Your task to perform on an android device: change text size in settings app Image 0: 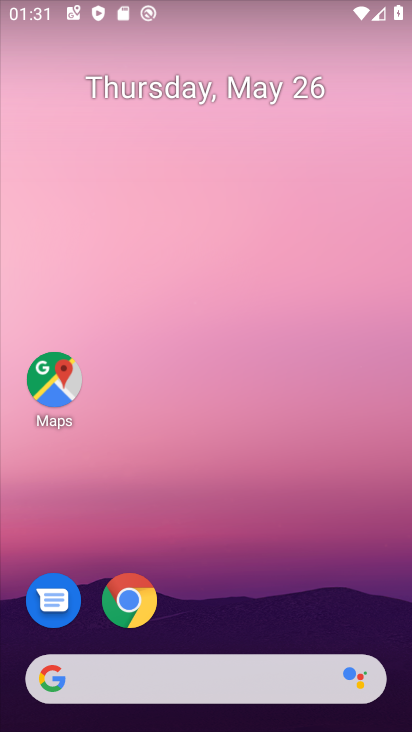
Step 0: drag from (189, 572) to (221, 173)
Your task to perform on an android device: change text size in settings app Image 1: 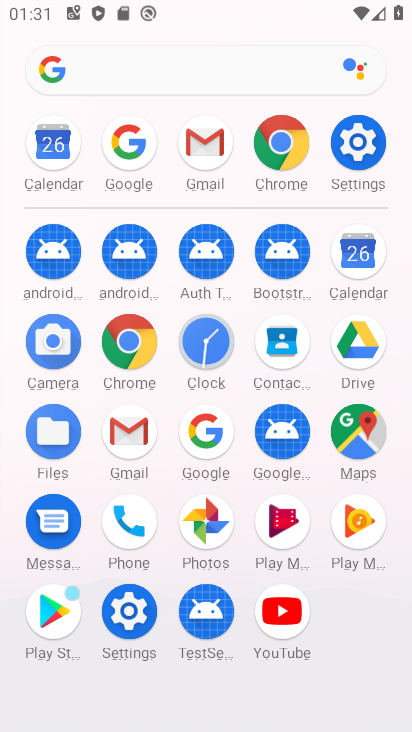
Step 1: click (388, 147)
Your task to perform on an android device: change text size in settings app Image 2: 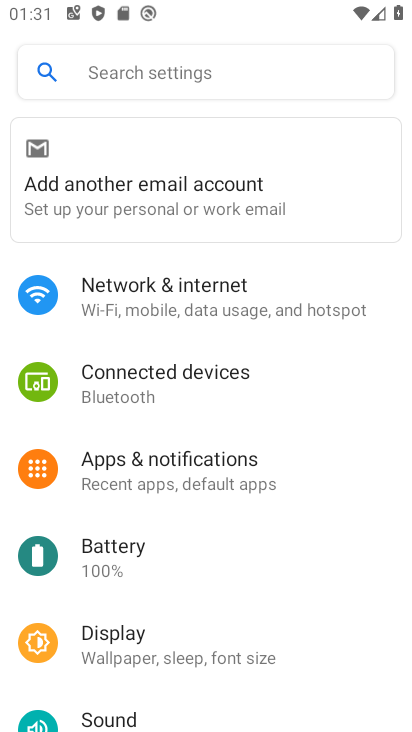
Step 2: click (121, 643)
Your task to perform on an android device: change text size in settings app Image 3: 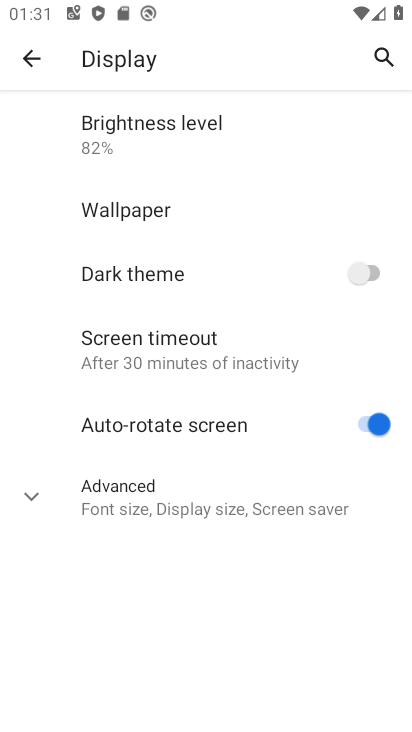
Step 3: click (117, 492)
Your task to perform on an android device: change text size in settings app Image 4: 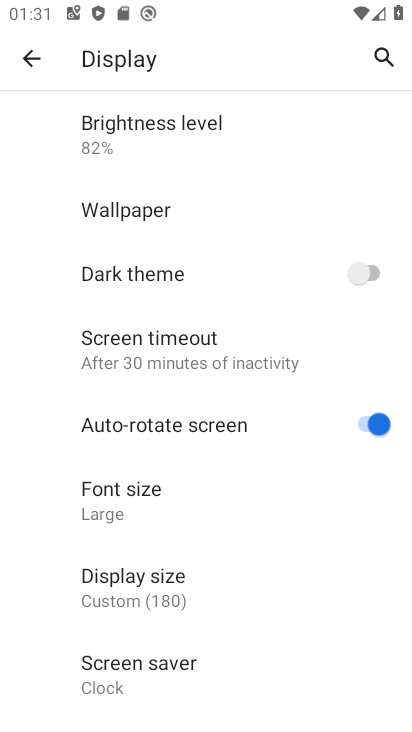
Step 4: click (101, 515)
Your task to perform on an android device: change text size in settings app Image 5: 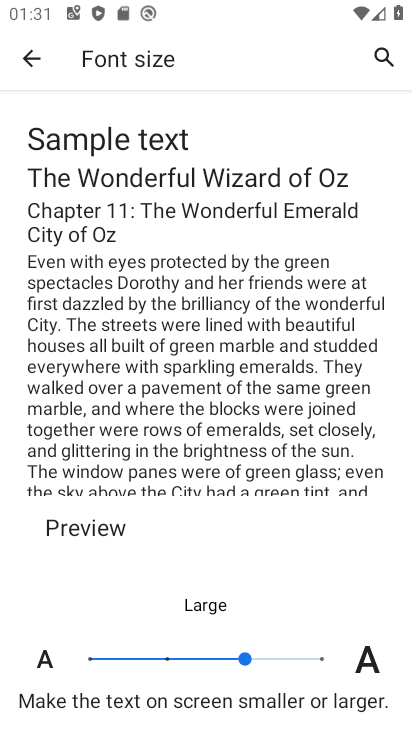
Step 5: click (168, 654)
Your task to perform on an android device: change text size in settings app Image 6: 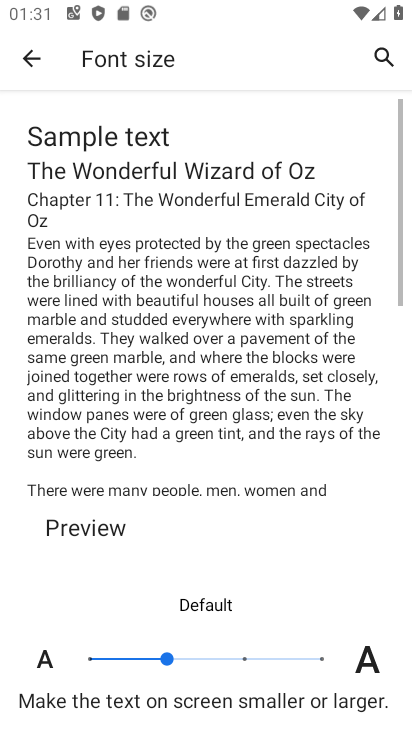
Step 6: click (168, 654)
Your task to perform on an android device: change text size in settings app Image 7: 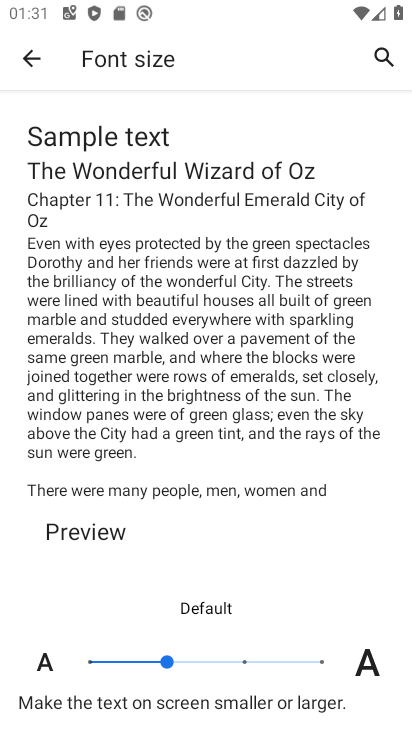
Step 7: task complete